Your task to perform on an android device: Go to notification settings Image 0: 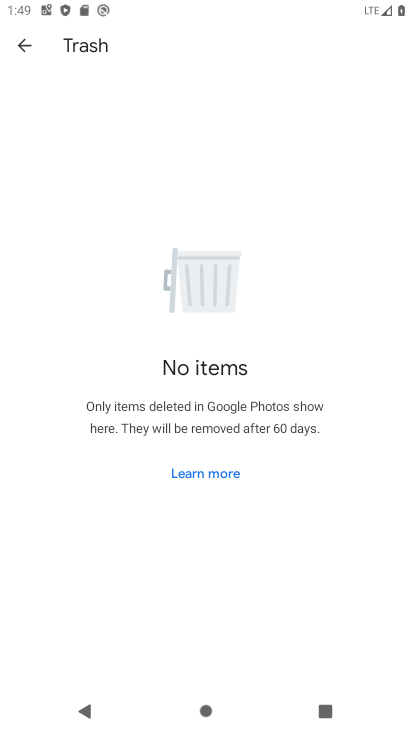
Step 0: press home button
Your task to perform on an android device: Go to notification settings Image 1: 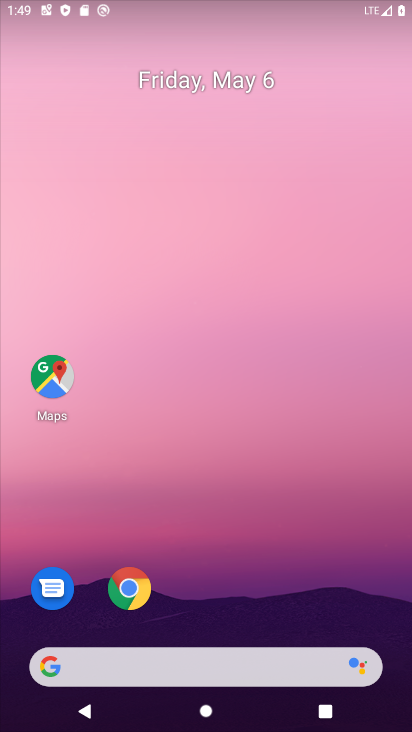
Step 1: drag from (355, 564) to (284, 129)
Your task to perform on an android device: Go to notification settings Image 2: 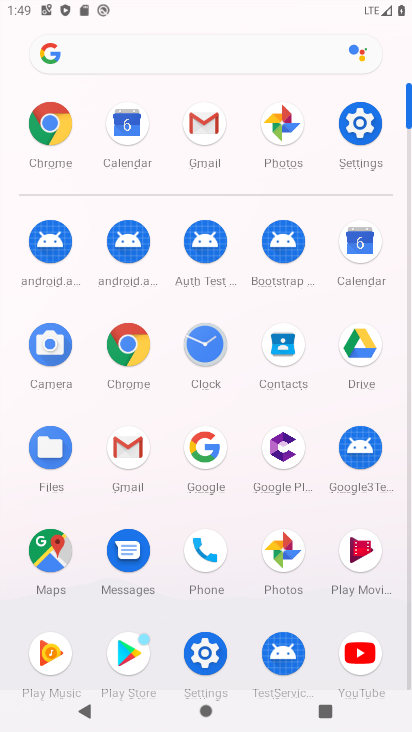
Step 2: click (353, 124)
Your task to perform on an android device: Go to notification settings Image 3: 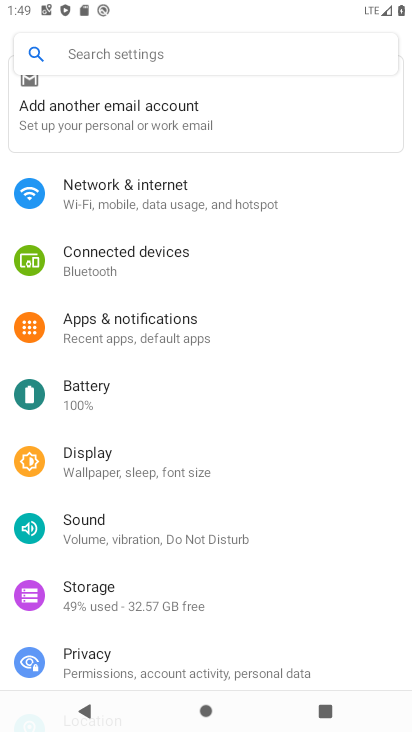
Step 3: click (160, 317)
Your task to perform on an android device: Go to notification settings Image 4: 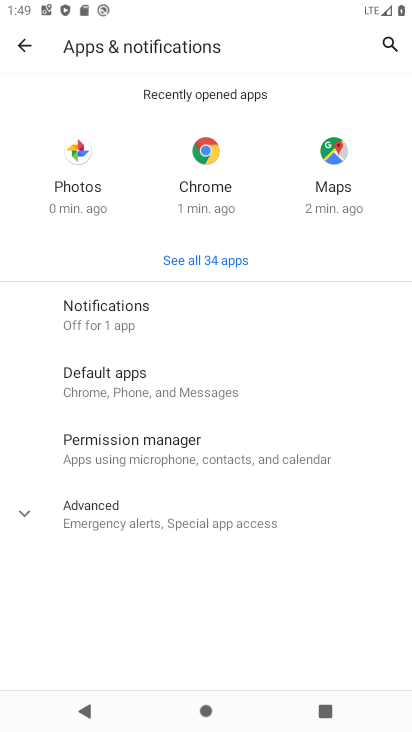
Step 4: click (128, 316)
Your task to perform on an android device: Go to notification settings Image 5: 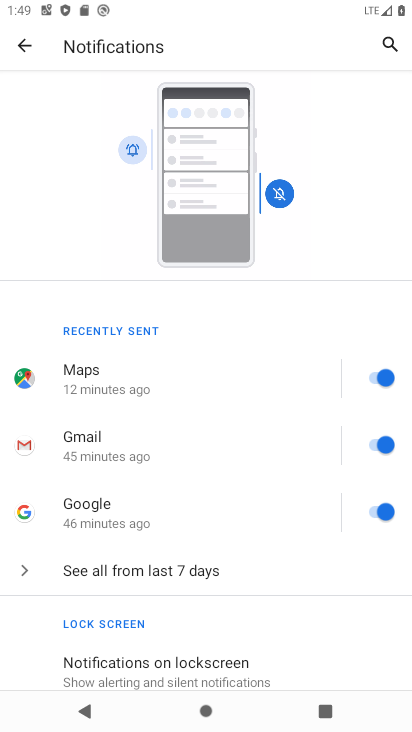
Step 5: drag from (246, 596) to (254, 382)
Your task to perform on an android device: Go to notification settings Image 6: 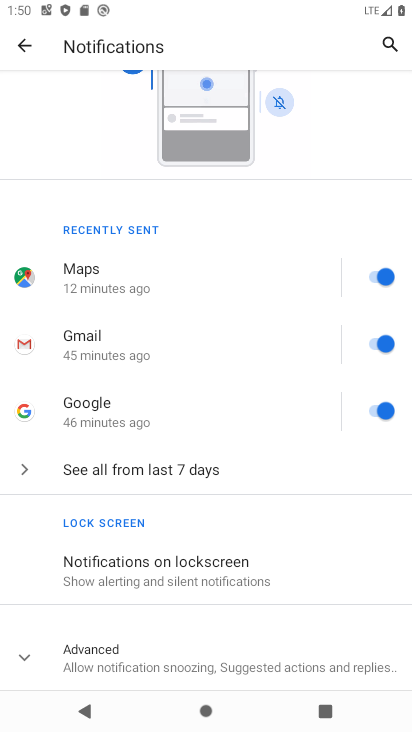
Step 6: click (370, 274)
Your task to perform on an android device: Go to notification settings Image 7: 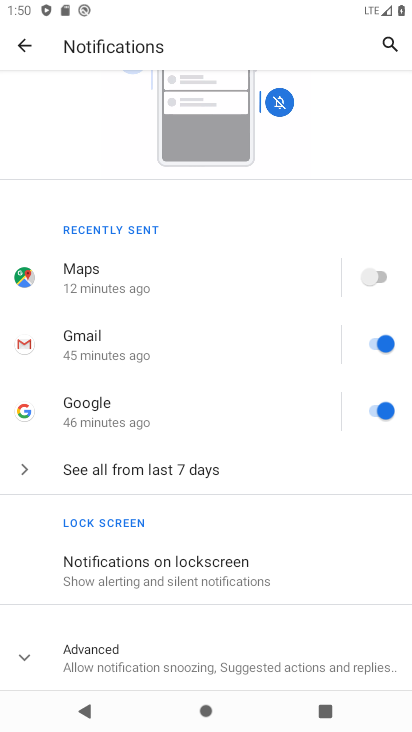
Step 7: task complete